Your task to perform on an android device: uninstall "Google Calendar" Image 0: 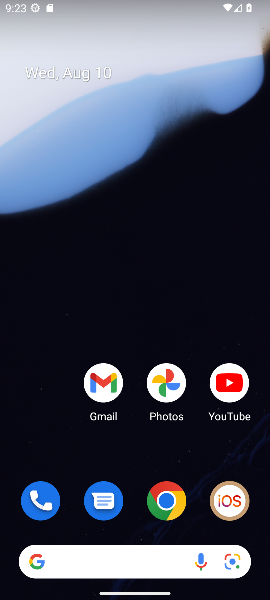
Step 0: drag from (146, 532) to (229, 140)
Your task to perform on an android device: uninstall "Google Calendar" Image 1: 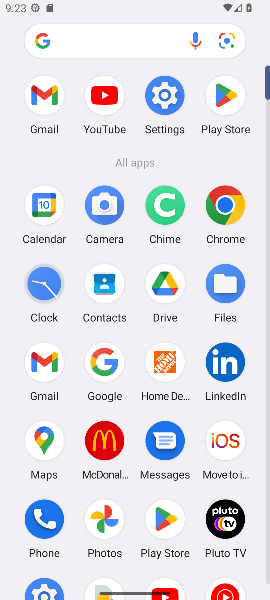
Step 1: click (46, 200)
Your task to perform on an android device: uninstall "Google Calendar" Image 2: 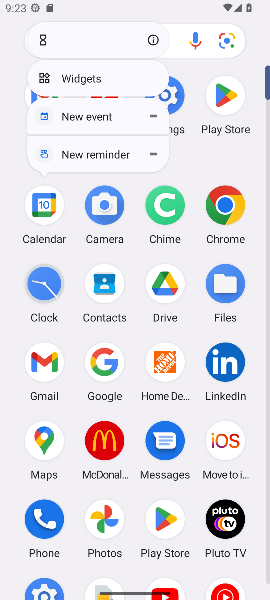
Step 2: click (156, 41)
Your task to perform on an android device: uninstall "Google Calendar" Image 3: 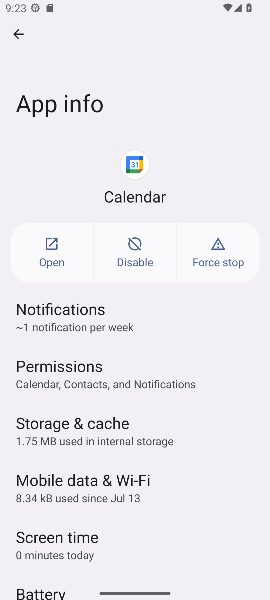
Step 3: task complete